Your task to perform on an android device: Open wifi settings Image 0: 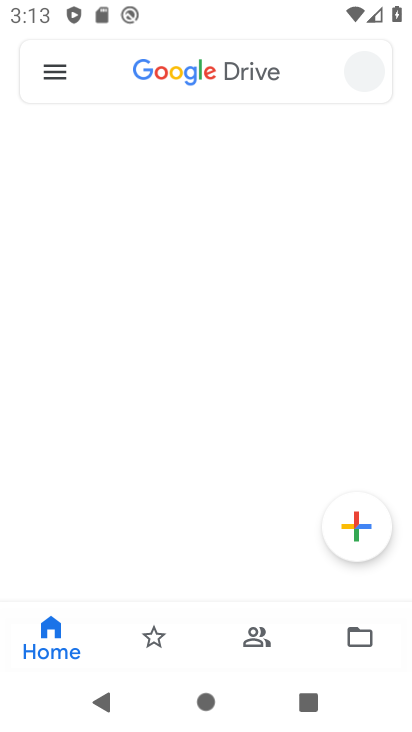
Step 0: drag from (351, 584) to (334, 427)
Your task to perform on an android device: Open wifi settings Image 1: 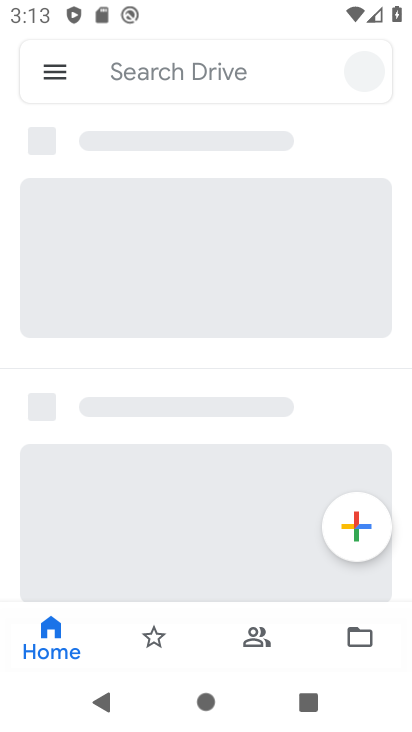
Step 1: press home button
Your task to perform on an android device: Open wifi settings Image 2: 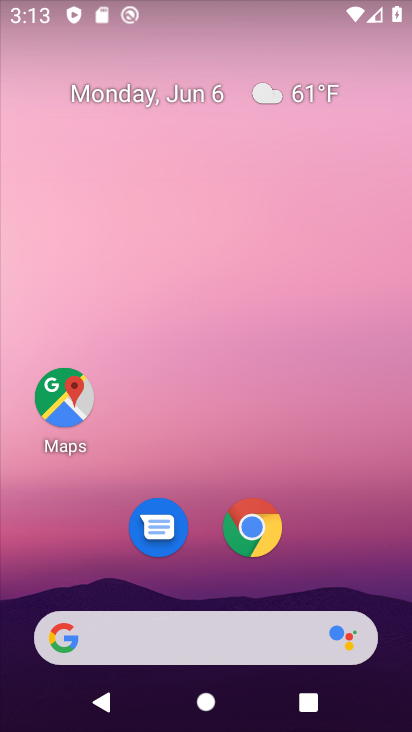
Step 2: drag from (324, 562) to (267, 97)
Your task to perform on an android device: Open wifi settings Image 3: 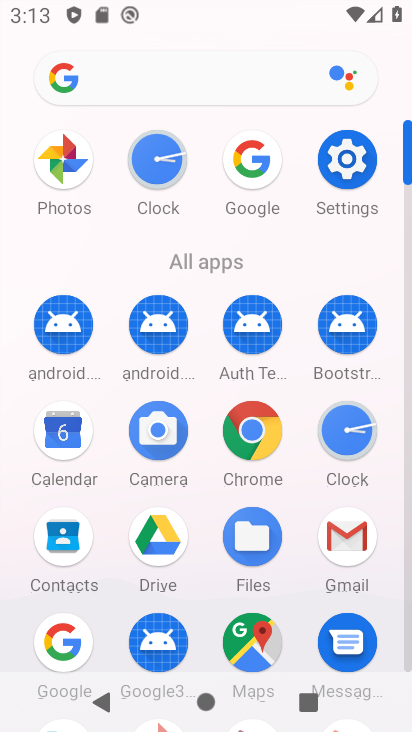
Step 3: click (348, 161)
Your task to perform on an android device: Open wifi settings Image 4: 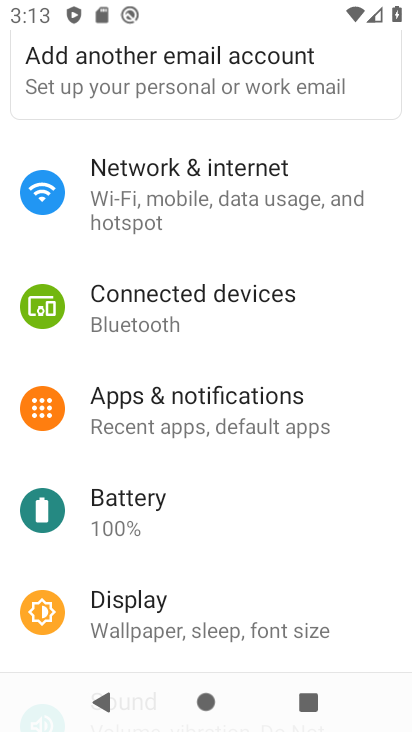
Step 4: click (208, 173)
Your task to perform on an android device: Open wifi settings Image 5: 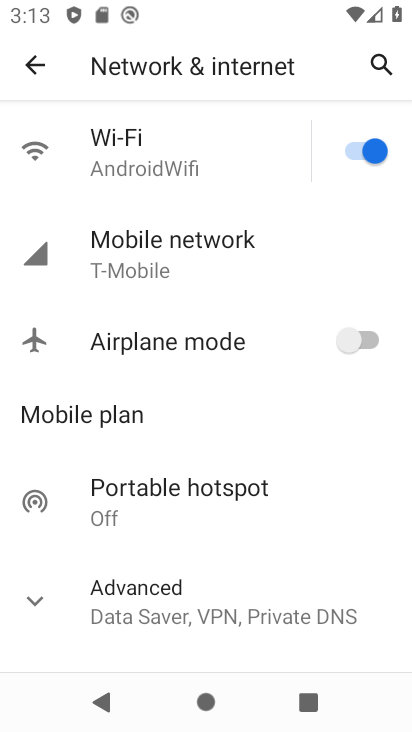
Step 5: click (159, 166)
Your task to perform on an android device: Open wifi settings Image 6: 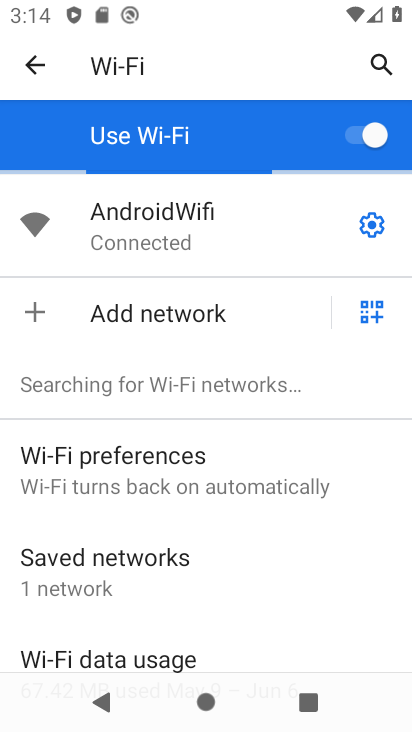
Step 6: click (371, 225)
Your task to perform on an android device: Open wifi settings Image 7: 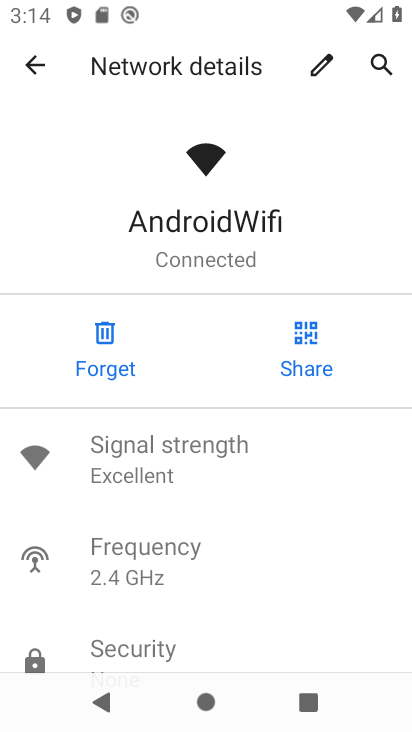
Step 7: task complete